Your task to perform on an android device: Open calendar and show me the fourth week of next month Image 0: 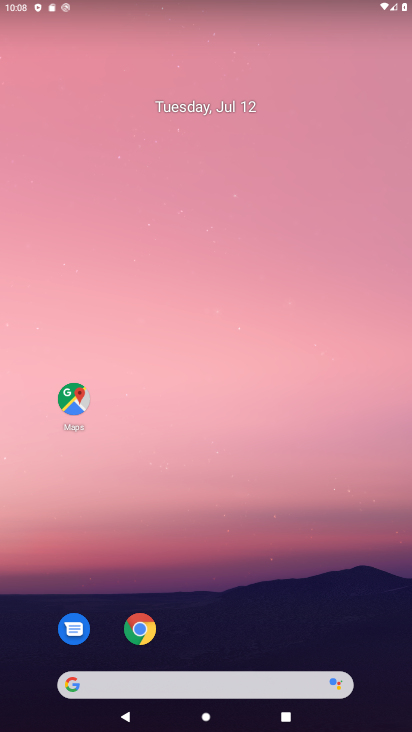
Step 0: drag from (315, 453) to (317, 135)
Your task to perform on an android device: Open calendar and show me the fourth week of next month Image 1: 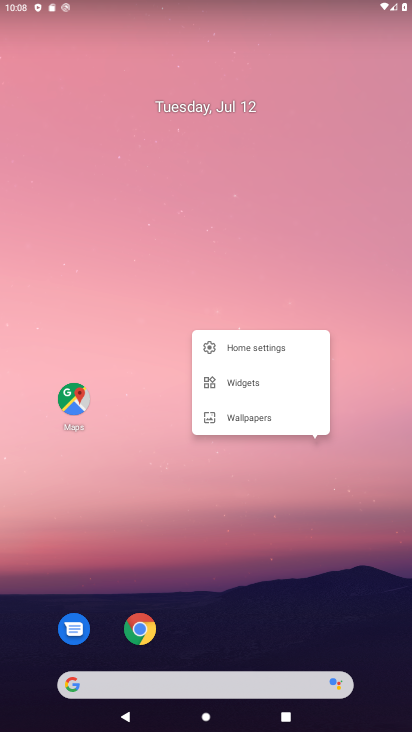
Step 1: drag from (315, 556) to (309, 37)
Your task to perform on an android device: Open calendar and show me the fourth week of next month Image 2: 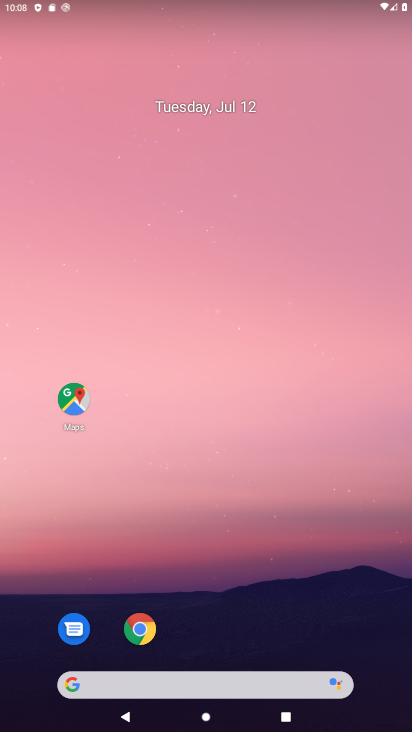
Step 2: drag from (291, 655) to (371, 0)
Your task to perform on an android device: Open calendar and show me the fourth week of next month Image 3: 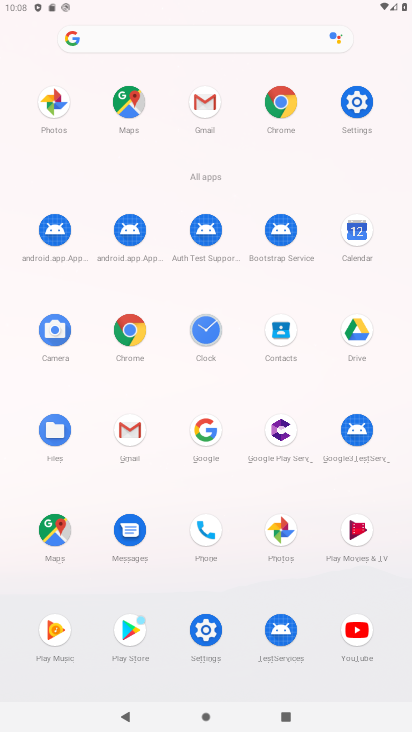
Step 3: click (356, 237)
Your task to perform on an android device: Open calendar and show me the fourth week of next month Image 4: 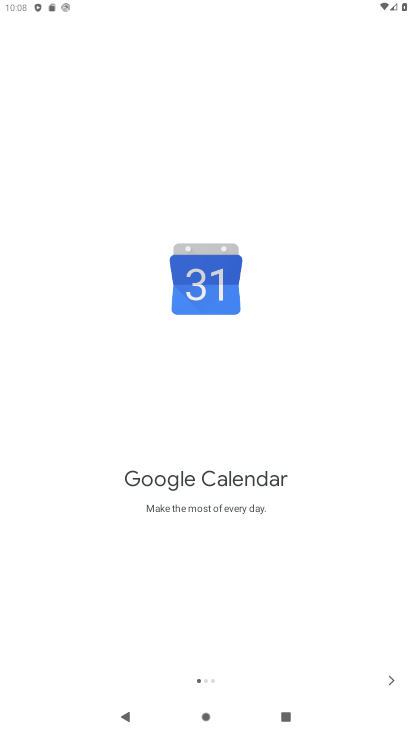
Step 4: click (390, 683)
Your task to perform on an android device: Open calendar and show me the fourth week of next month Image 5: 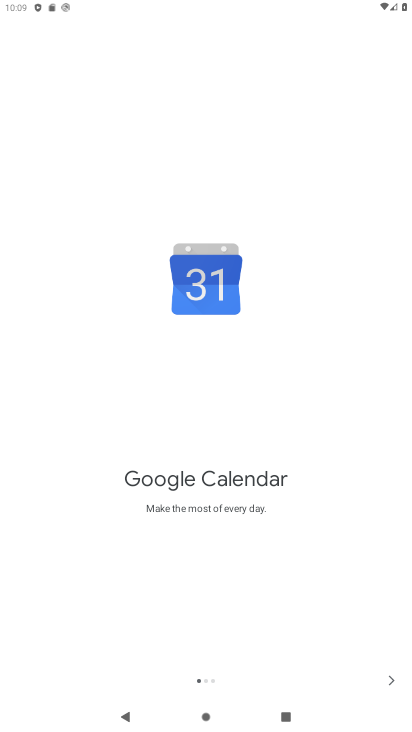
Step 5: click (390, 683)
Your task to perform on an android device: Open calendar and show me the fourth week of next month Image 6: 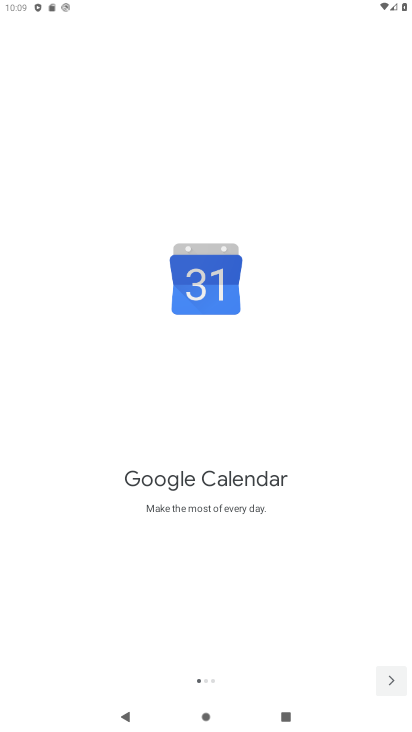
Step 6: click (390, 683)
Your task to perform on an android device: Open calendar and show me the fourth week of next month Image 7: 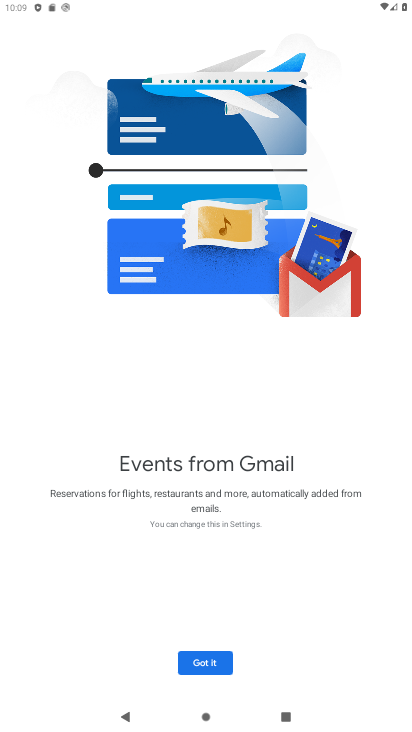
Step 7: click (208, 653)
Your task to perform on an android device: Open calendar and show me the fourth week of next month Image 8: 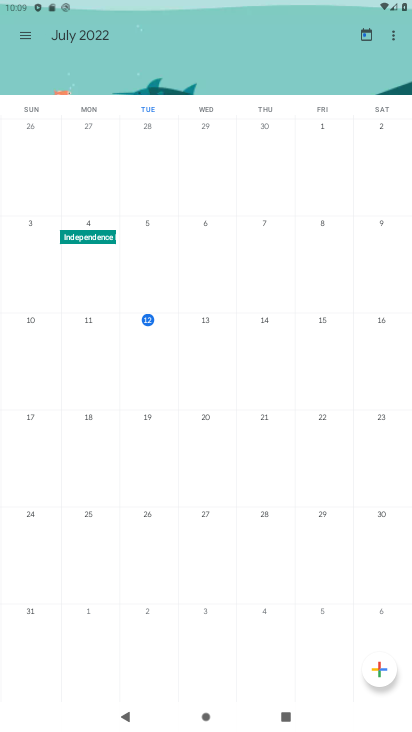
Step 8: click (26, 36)
Your task to perform on an android device: Open calendar and show me the fourth week of next month Image 9: 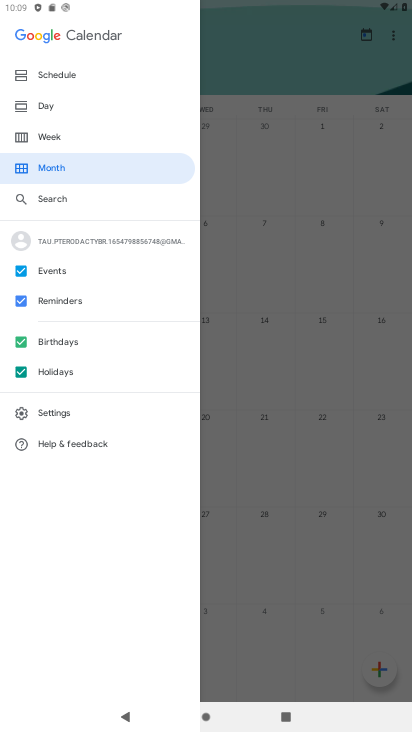
Step 9: click (77, 134)
Your task to perform on an android device: Open calendar and show me the fourth week of next month Image 10: 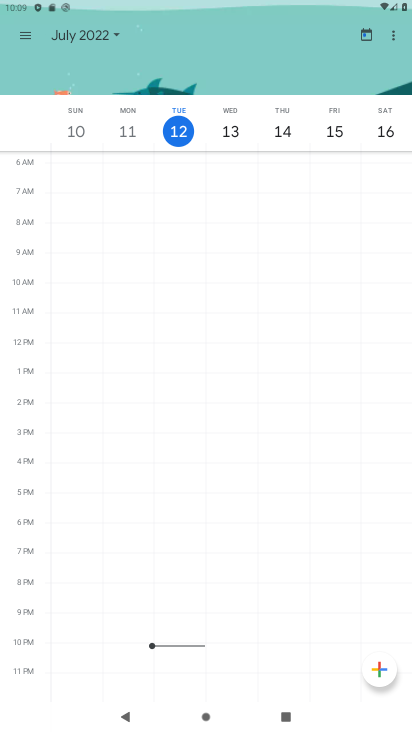
Step 10: click (111, 38)
Your task to perform on an android device: Open calendar and show me the fourth week of next month Image 11: 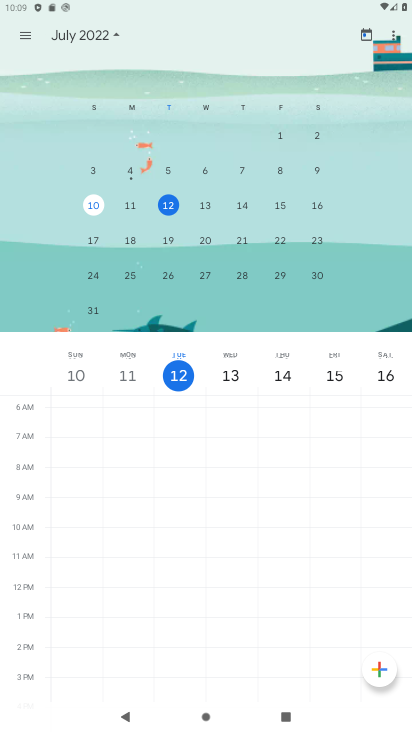
Step 11: drag from (319, 271) to (24, 212)
Your task to perform on an android device: Open calendar and show me the fourth week of next month Image 12: 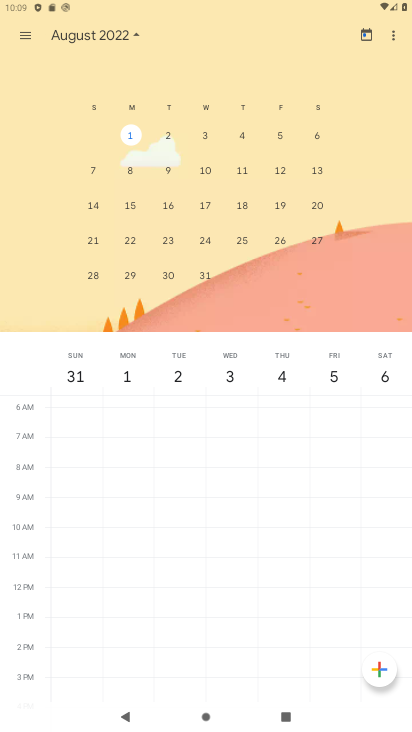
Step 12: click (142, 247)
Your task to perform on an android device: Open calendar and show me the fourth week of next month Image 13: 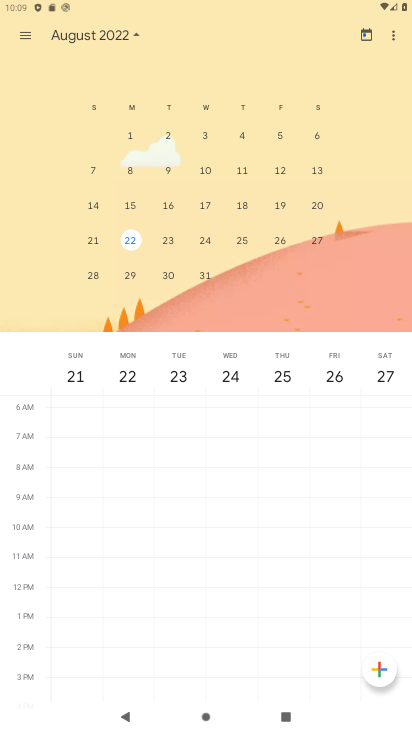
Step 13: task complete